Your task to perform on an android device: Turn off the flashlight Image 0: 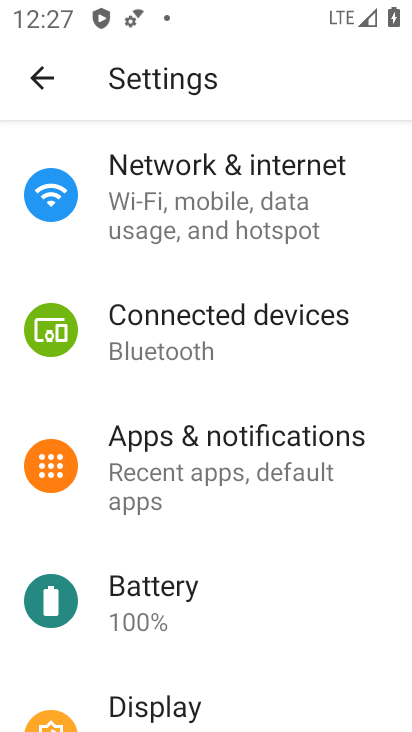
Step 0: drag from (198, 448) to (174, 154)
Your task to perform on an android device: Turn off the flashlight Image 1: 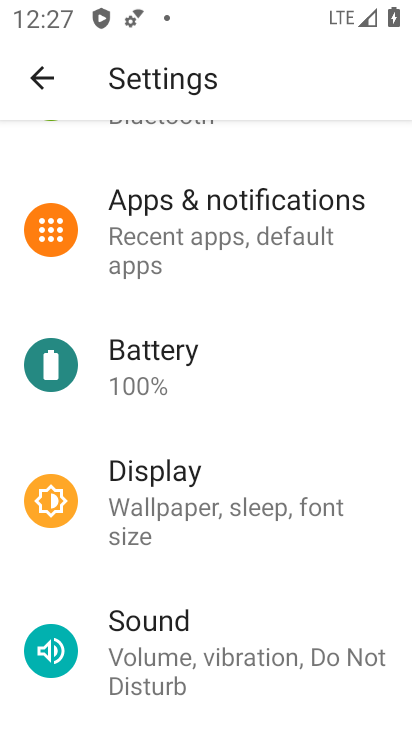
Step 1: task complete